Your task to perform on an android device: Open eBay Image 0: 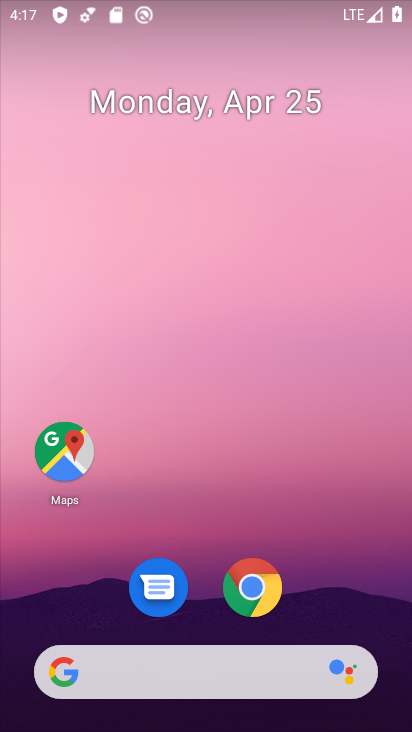
Step 0: click (257, 591)
Your task to perform on an android device: Open eBay Image 1: 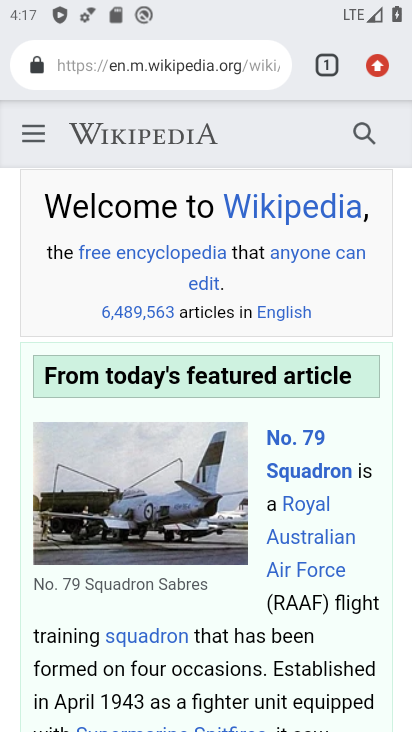
Step 1: click (148, 73)
Your task to perform on an android device: Open eBay Image 2: 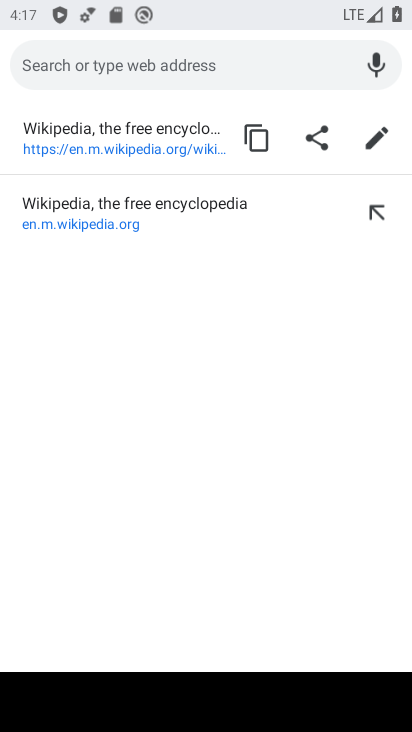
Step 2: click (196, 55)
Your task to perform on an android device: Open eBay Image 3: 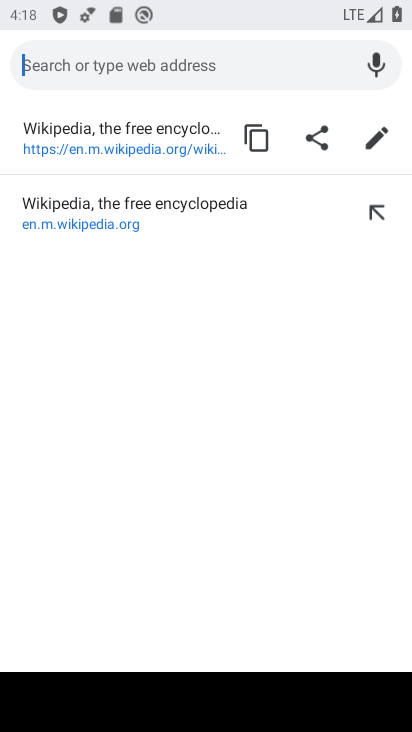
Step 3: type "ebay"
Your task to perform on an android device: Open eBay Image 4: 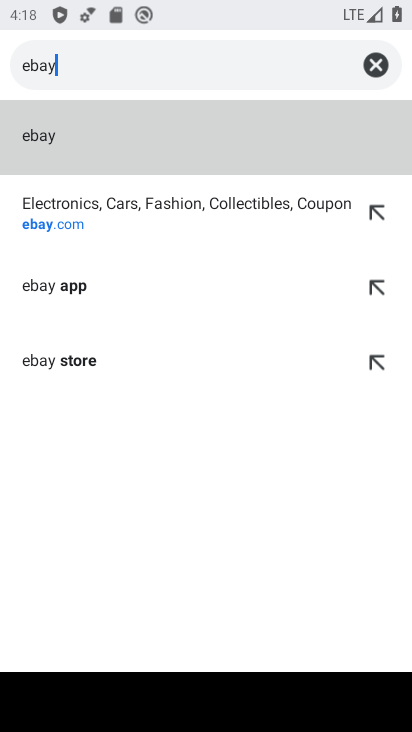
Step 4: click (21, 277)
Your task to perform on an android device: Open eBay Image 5: 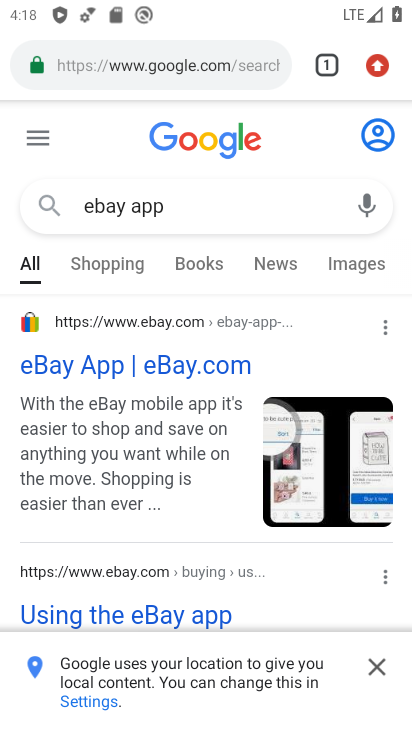
Step 5: task complete